Your task to perform on an android device: Open Chrome and go to settings Image 0: 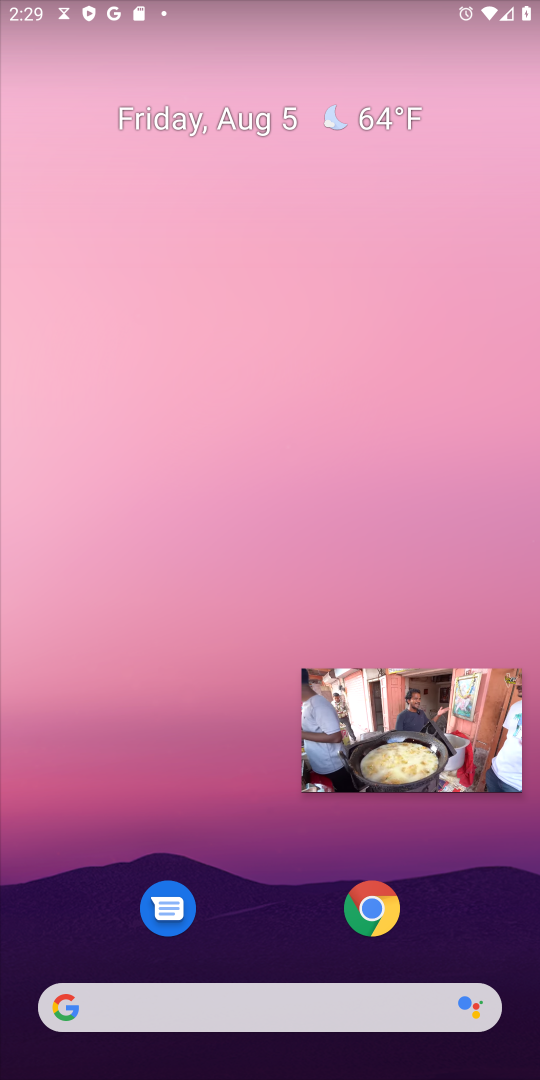
Step 0: click (492, 692)
Your task to perform on an android device: Open Chrome and go to settings Image 1: 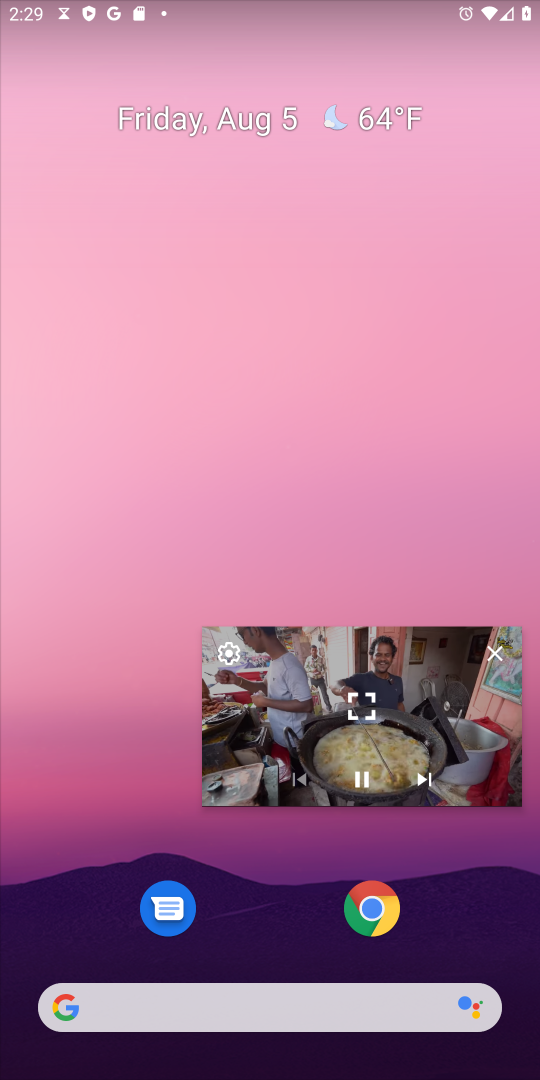
Step 1: click (498, 648)
Your task to perform on an android device: Open Chrome and go to settings Image 2: 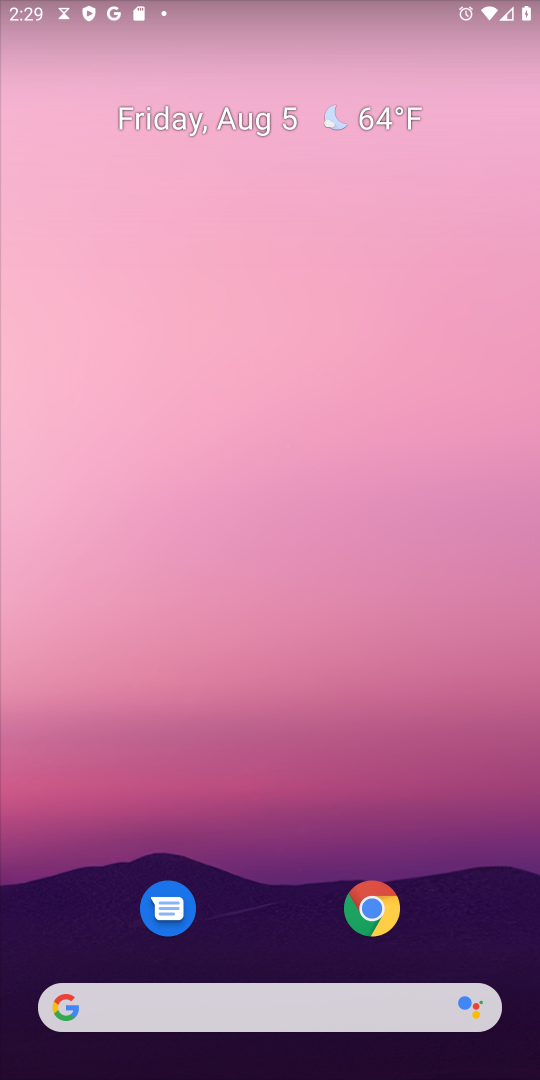
Step 2: drag from (315, 905) to (245, 36)
Your task to perform on an android device: Open Chrome and go to settings Image 3: 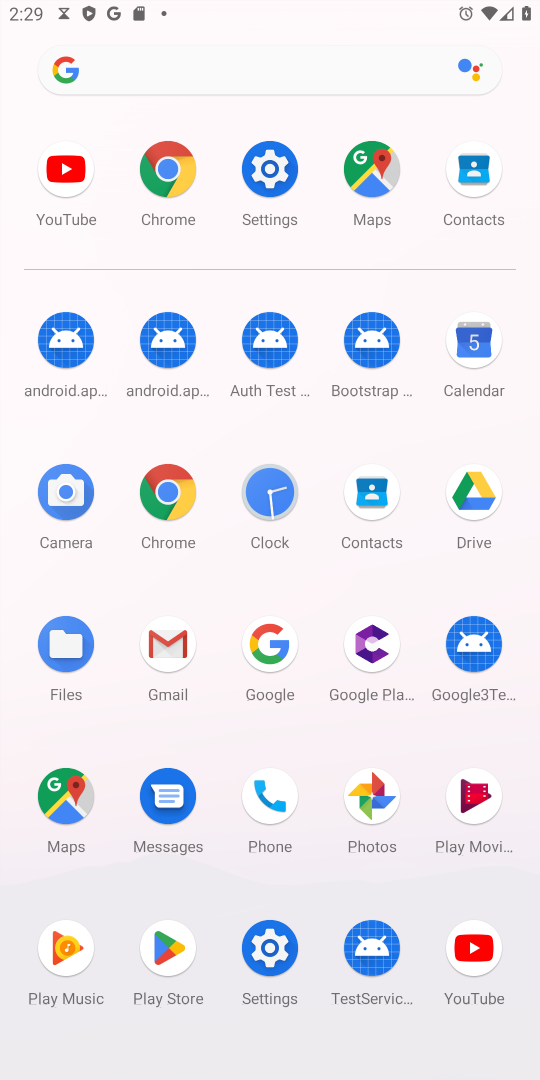
Step 3: click (183, 488)
Your task to perform on an android device: Open Chrome and go to settings Image 4: 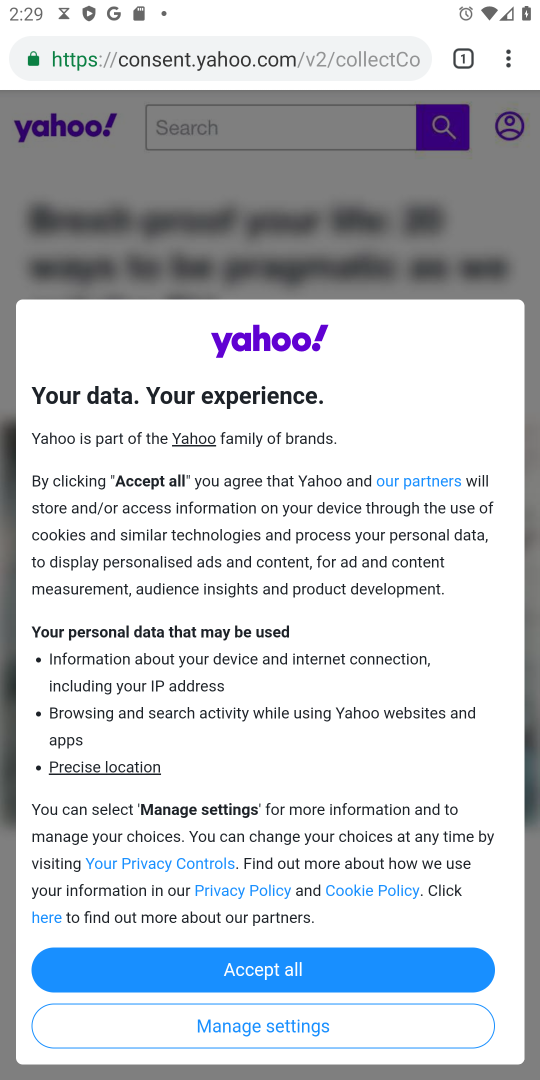
Step 4: click (304, 54)
Your task to perform on an android device: Open Chrome and go to settings Image 5: 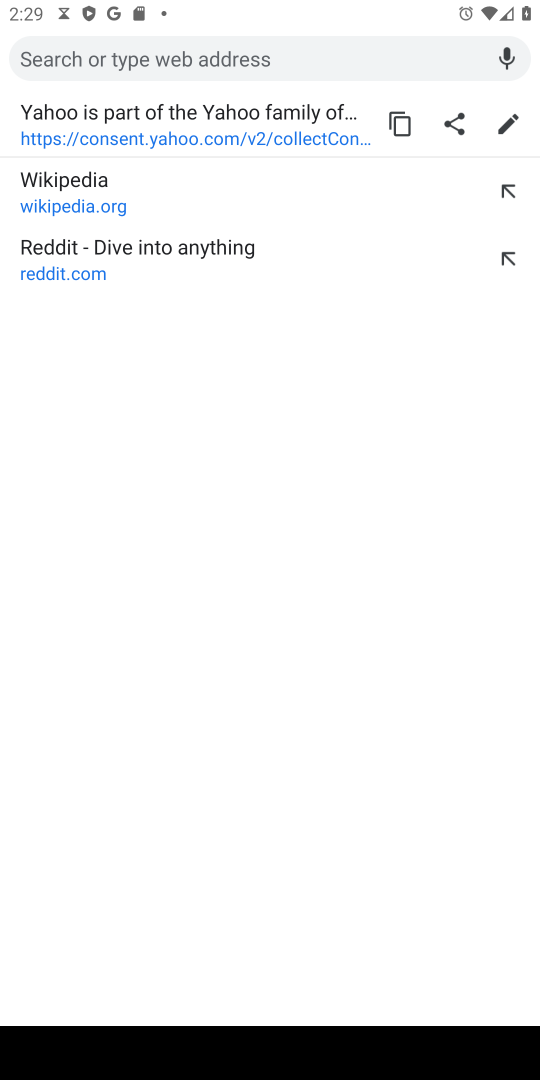
Step 5: task complete